Your task to perform on an android device: turn pop-ups off in chrome Image 0: 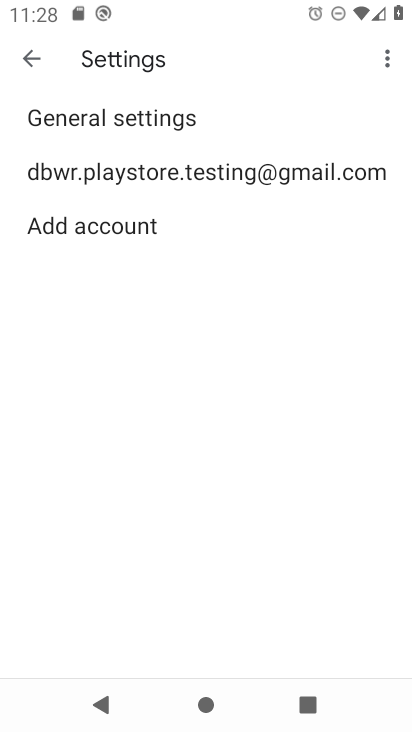
Step 0: press back button
Your task to perform on an android device: turn pop-ups off in chrome Image 1: 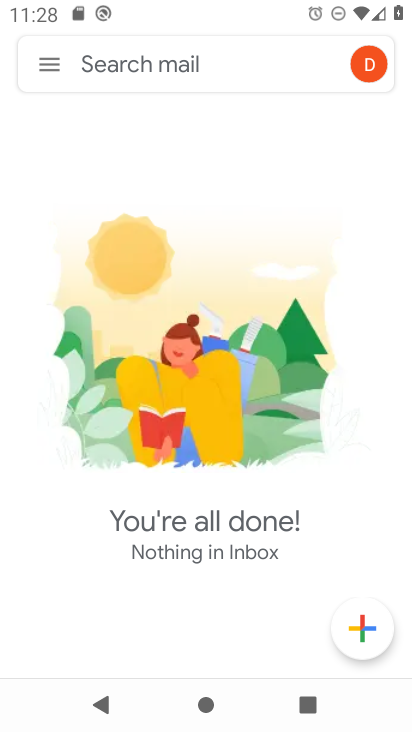
Step 1: press home button
Your task to perform on an android device: turn pop-ups off in chrome Image 2: 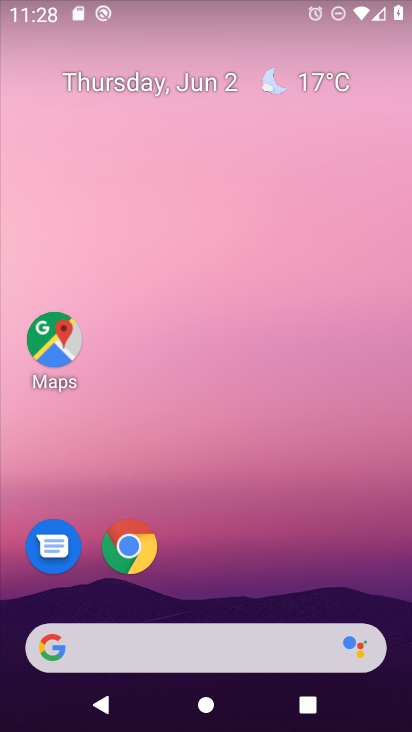
Step 2: drag from (263, 85) to (265, 42)
Your task to perform on an android device: turn pop-ups off in chrome Image 3: 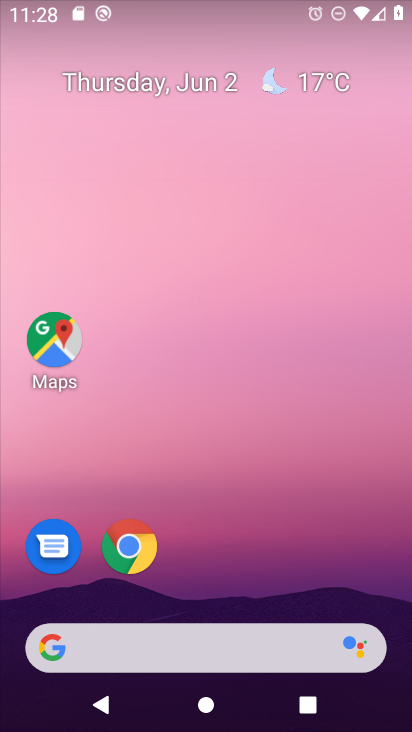
Step 3: drag from (238, 533) to (212, 19)
Your task to perform on an android device: turn pop-ups off in chrome Image 4: 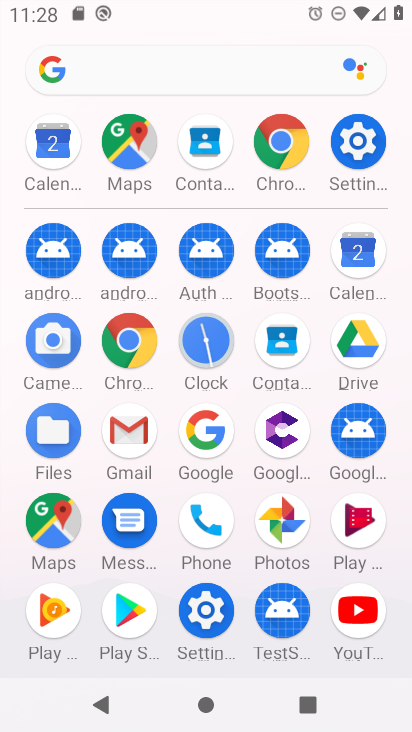
Step 4: click (129, 338)
Your task to perform on an android device: turn pop-ups off in chrome Image 5: 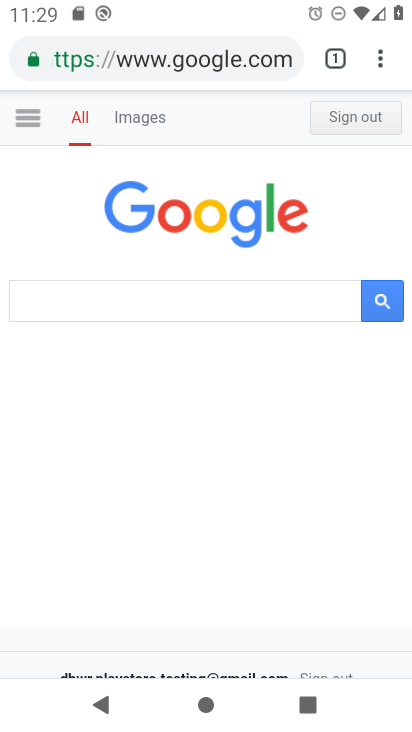
Step 5: drag from (379, 63) to (229, 577)
Your task to perform on an android device: turn pop-ups off in chrome Image 6: 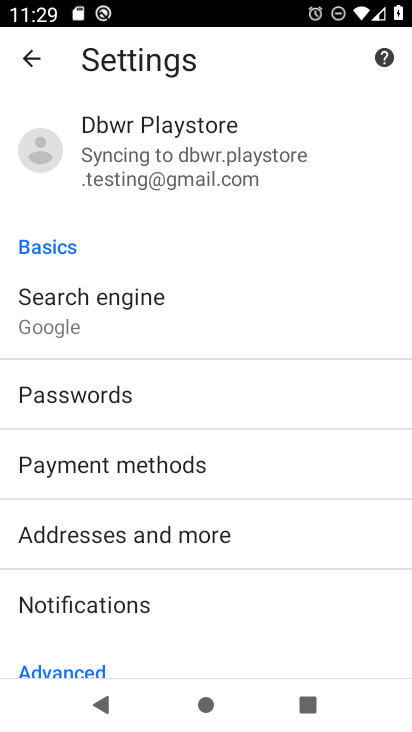
Step 6: drag from (250, 570) to (268, 101)
Your task to perform on an android device: turn pop-ups off in chrome Image 7: 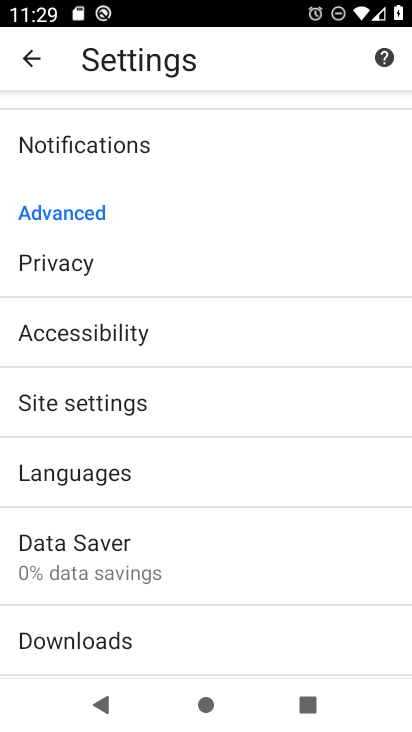
Step 7: drag from (198, 438) to (198, 144)
Your task to perform on an android device: turn pop-ups off in chrome Image 8: 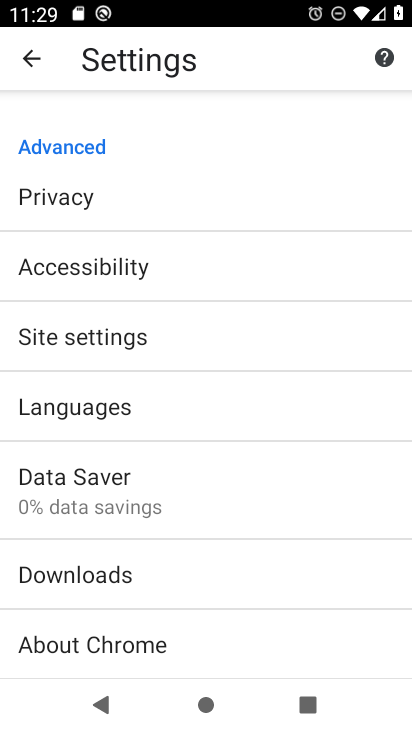
Step 8: drag from (205, 395) to (241, 113)
Your task to perform on an android device: turn pop-ups off in chrome Image 9: 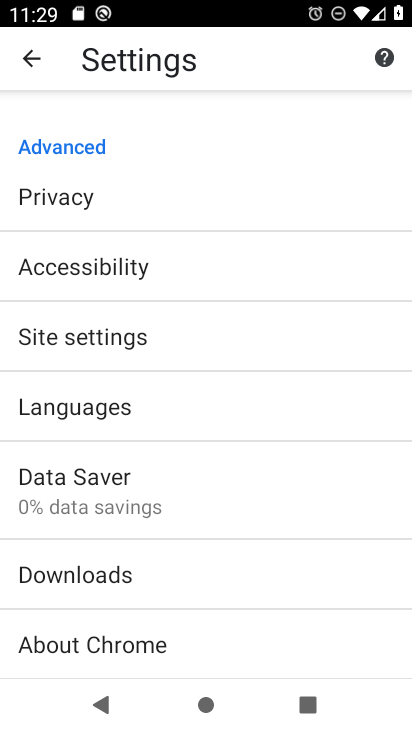
Step 9: click (133, 331)
Your task to perform on an android device: turn pop-ups off in chrome Image 10: 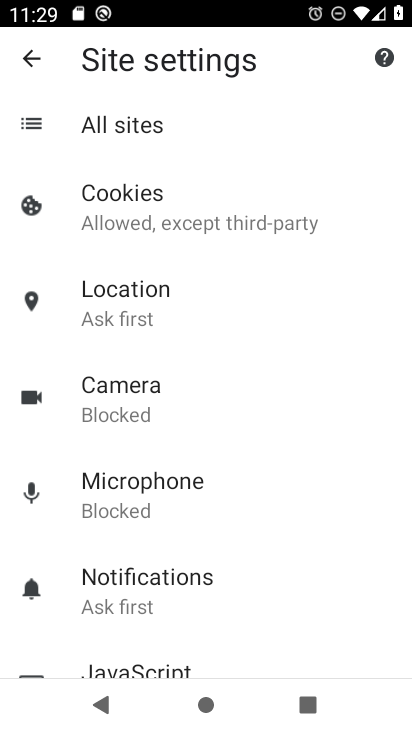
Step 10: drag from (210, 560) to (264, 142)
Your task to perform on an android device: turn pop-ups off in chrome Image 11: 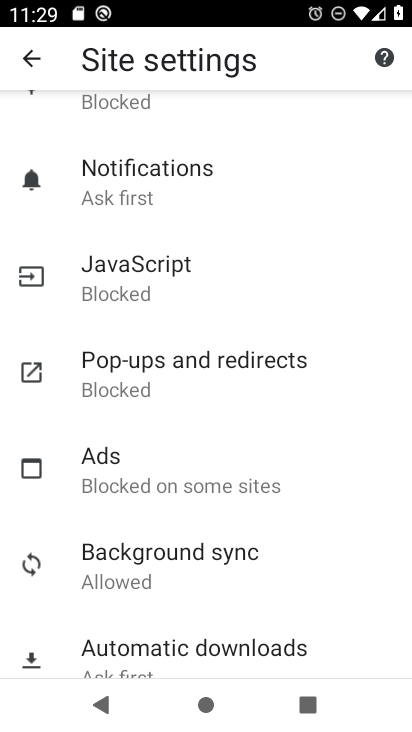
Step 11: drag from (247, 456) to (290, 186)
Your task to perform on an android device: turn pop-ups off in chrome Image 12: 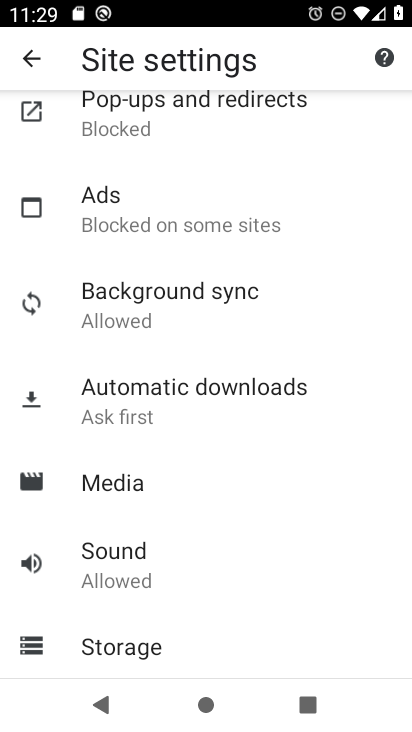
Step 12: click (163, 112)
Your task to perform on an android device: turn pop-ups off in chrome Image 13: 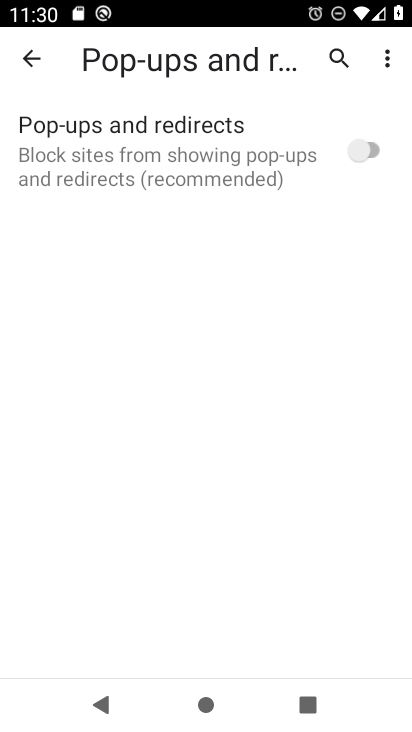
Step 13: task complete